Your task to perform on an android device: When is my next appointment? Image 0: 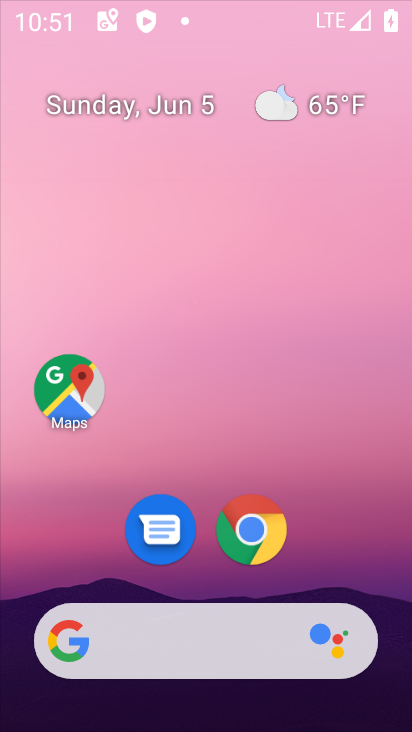
Step 0: click (220, 6)
Your task to perform on an android device: When is my next appointment? Image 1: 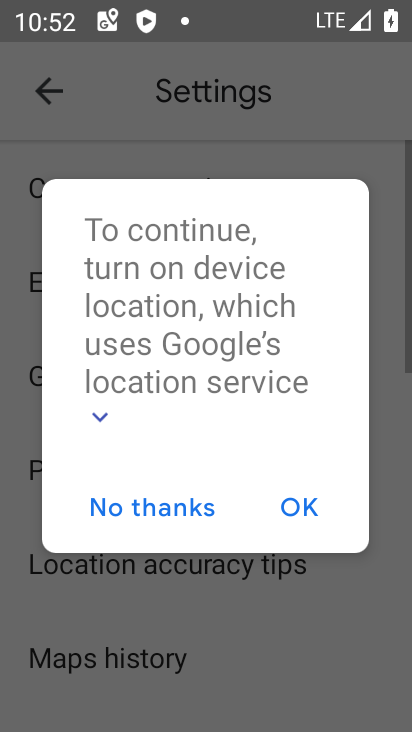
Step 1: press home button
Your task to perform on an android device: When is my next appointment? Image 2: 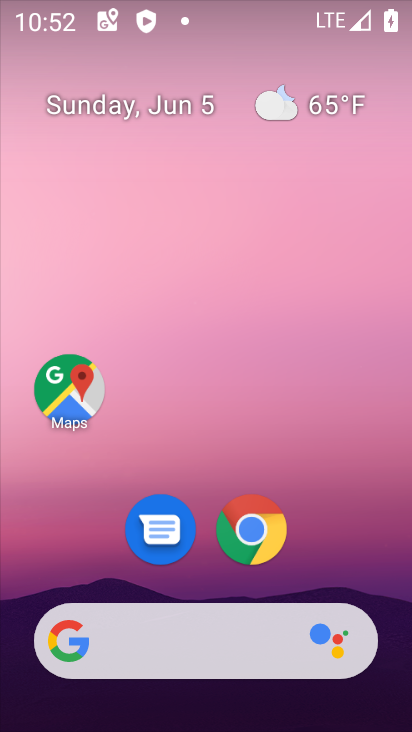
Step 2: drag from (240, 575) to (375, 39)
Your task to perform on an android device: When is my next appointment? Image 3: 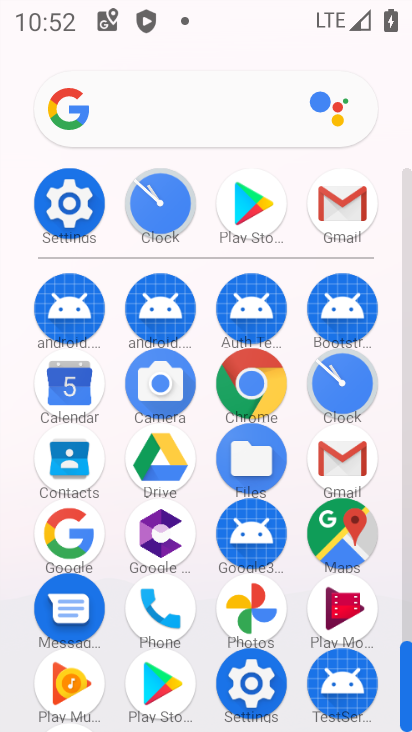
Step 3: click (84, 388)
Your task to perform on an android device: When is my next appointment? Image 4: 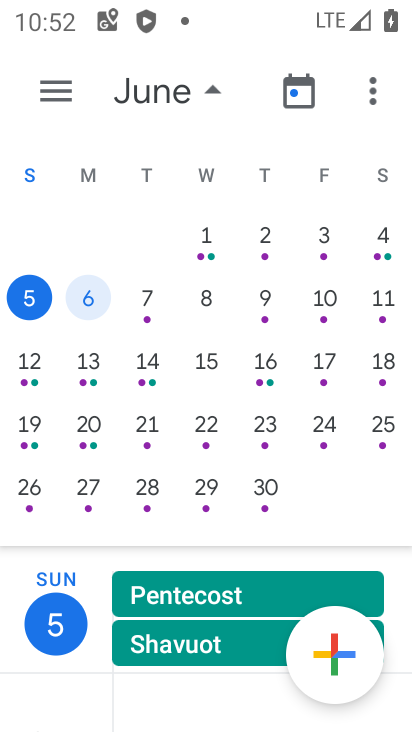
Step 4: task complete